Your task to perform on an android device: turn on wifi Image 0: 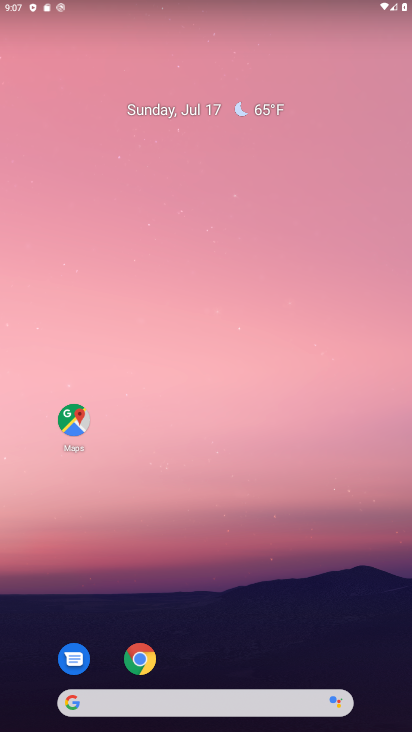
Step 0: drag from (241, 11) to (251, 574)
Your task to perform on an android device: turn on wifi Image 1: 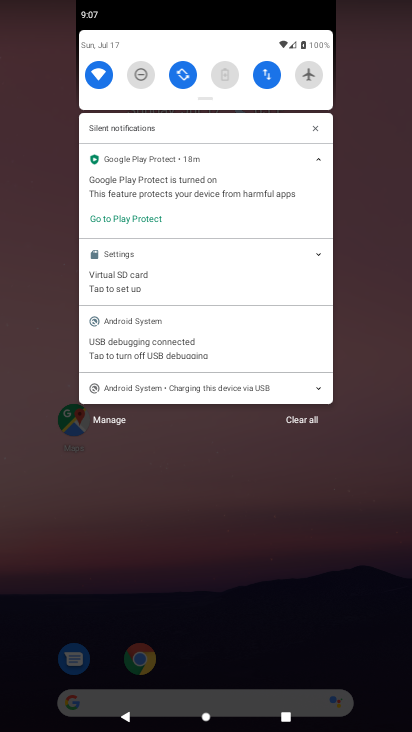
Step 1: task complete